Your task to perform on an android device: turn pop-ups off in chrome Image 0: 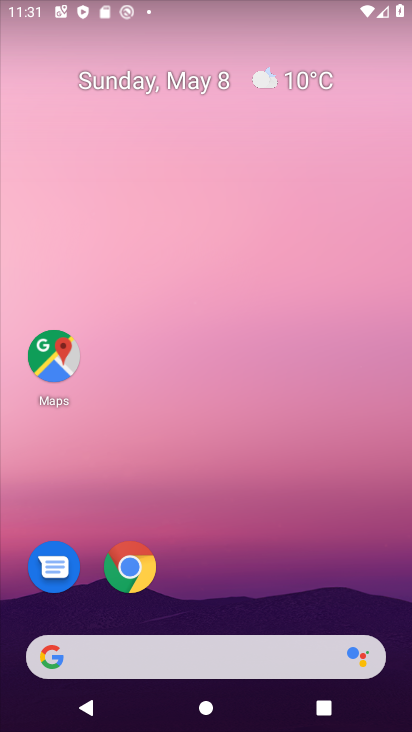
Step 0: drag from (212, 576) to (266, 194)
Your task to perform on an android device: turn pop-ups off in chrome Image 1: 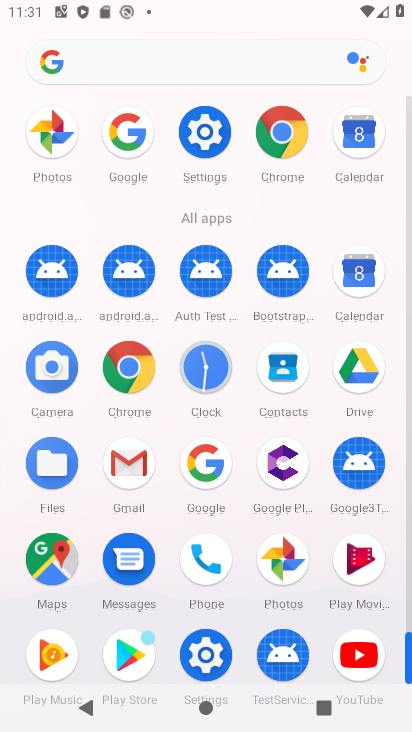
Step 1: click (300, 173)
Your task to perform on an android device: turn pop-ups off in chrome Image 2: 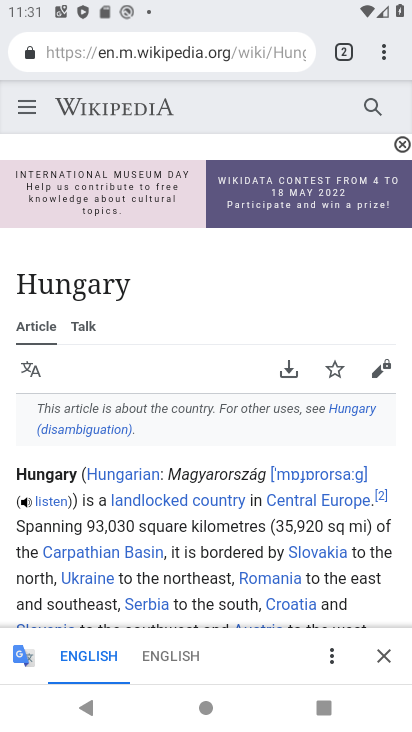
Step 2: click (391, 50)
Your task to perform on an android device: turn pop-ups off in chrome Image 3: 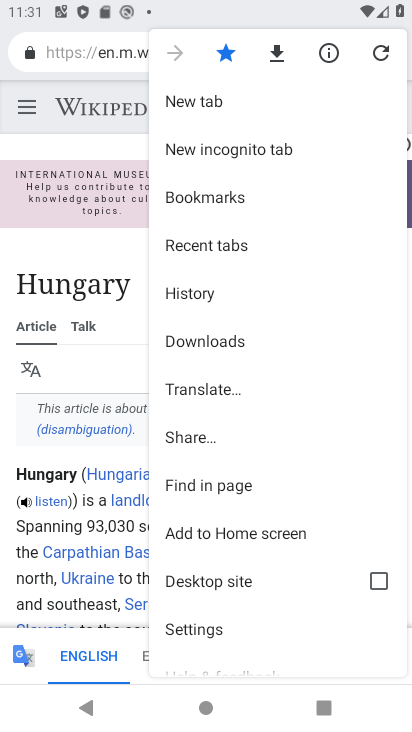
Step 3: drag from (253, 445) to (296, 96)
Your task to perform on an android device: turn pop-ups off in chrome Image 4: 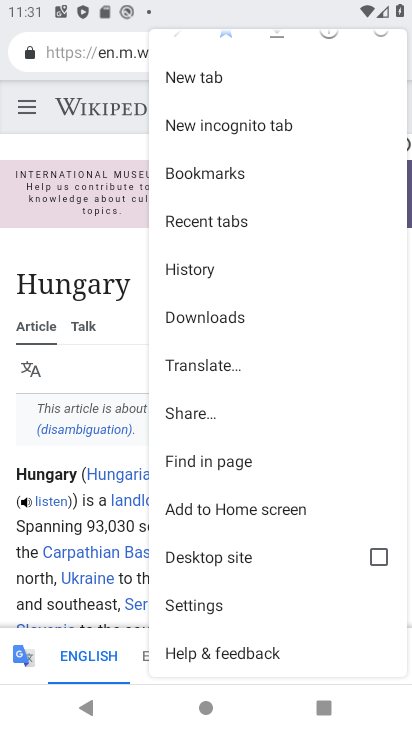
Step 4: click (228, 600)
Your task to perform on an android device: turn pop-ups off in chrome Image 5: 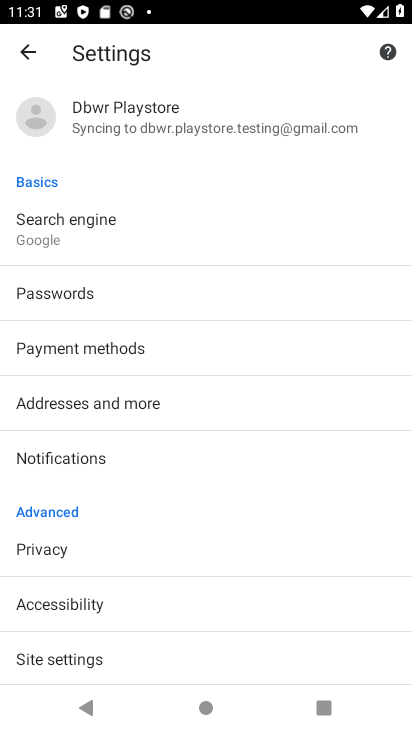
Step 5: click (104, 651)
Your task to perform on an android device: turn pop-ups off in chrome Image 6: 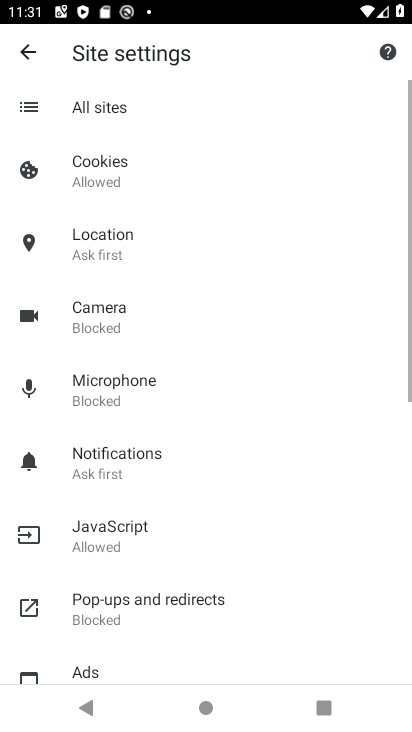
Step 6: drag from (104, 651) to (188, 411)
Your task to perform on an android device: turn pop-ups off in chrome Image 7: 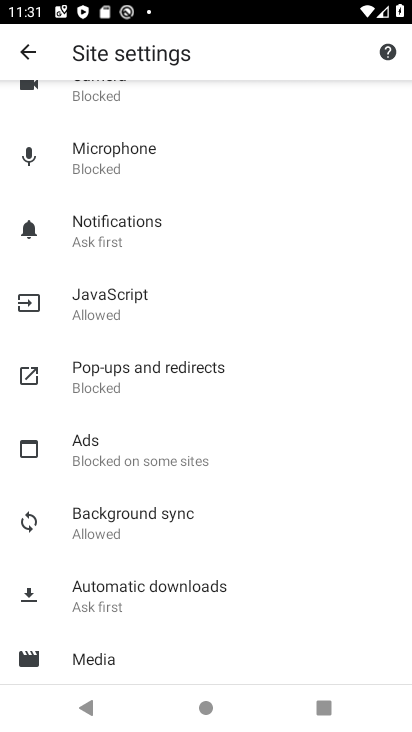
Step 7: click (154, 401)
Your task to perform on an android device: turn pop-ups off in chrome Image 8: 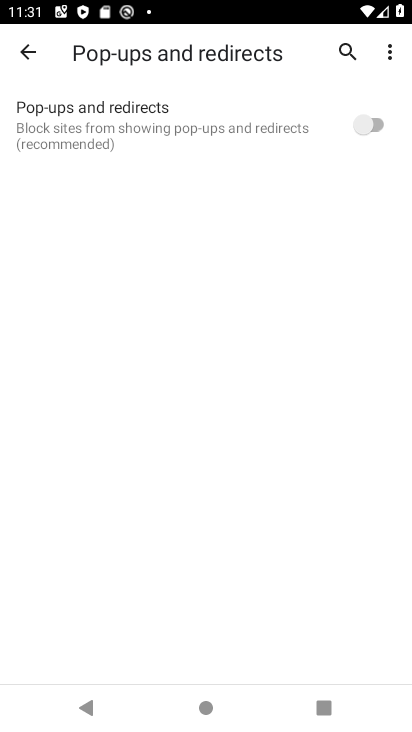
Step 8: task complete